Your task to perform on an android device: Go to Yahoo.com Image 0: 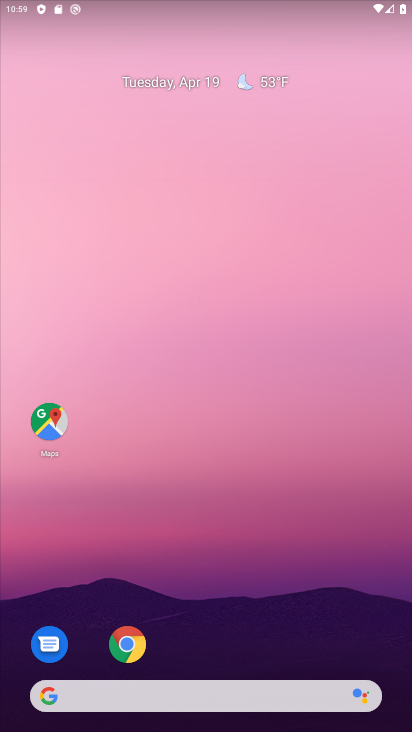
Step 0: click (129, 645)
Your task to perform on an android device: Go to Yahoo.com Image 1: 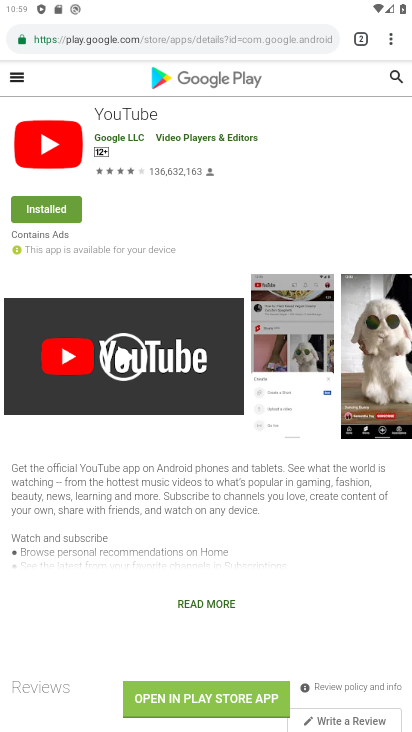
Step 1: click (351, 38)
Your task to perform on an android device: Go to Yahoo.com Image 2: 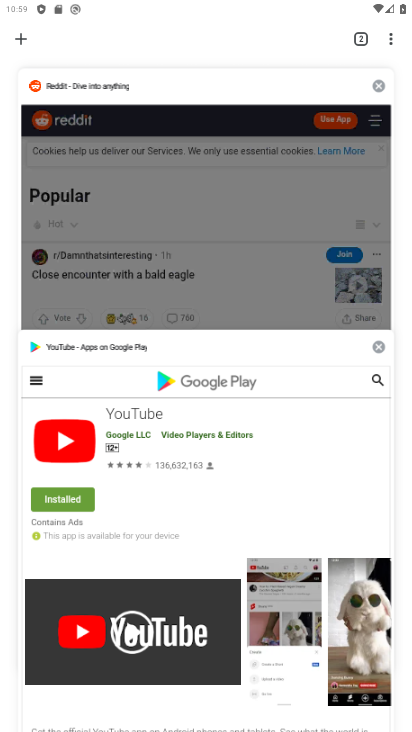
Step 2: click (19, 39)
Your task to perform on an android device: Go to Yahoo.com Image 3: 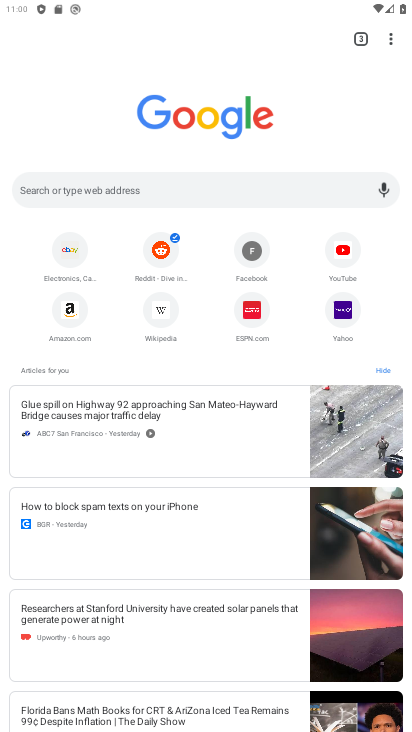
Step 3: click (344, 316)
Your task to perform on an android device: Go to Yahoo.com Image 4: 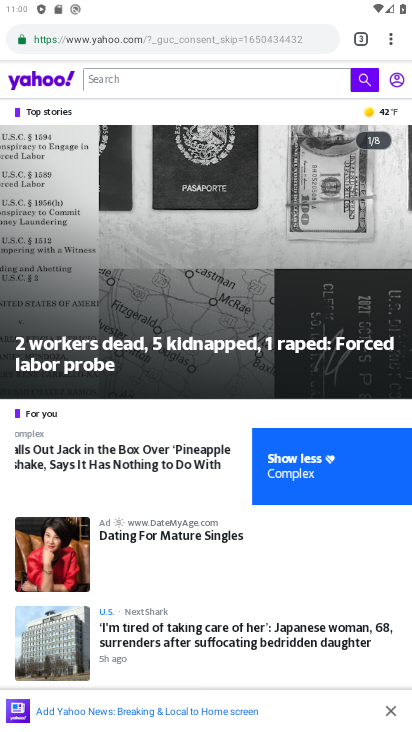
Step 4: task complete